Your task to perform on an android device: read, delete, or share a saved page in the chrome app Image 0: 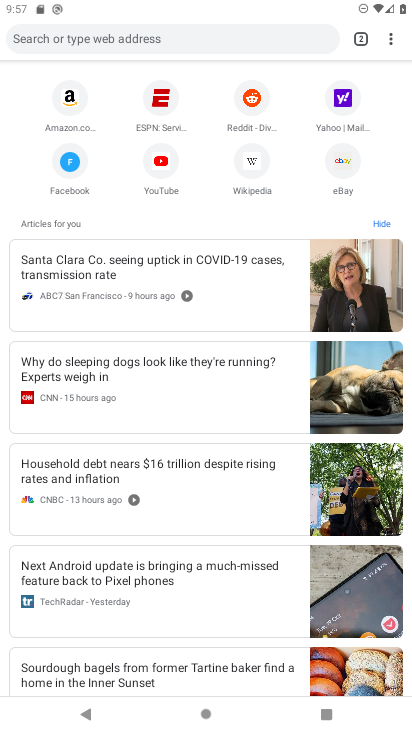
Step 0: press home button
Your task to perform on an android device: read, delete, or share a saved page in the chrome app Image 1: 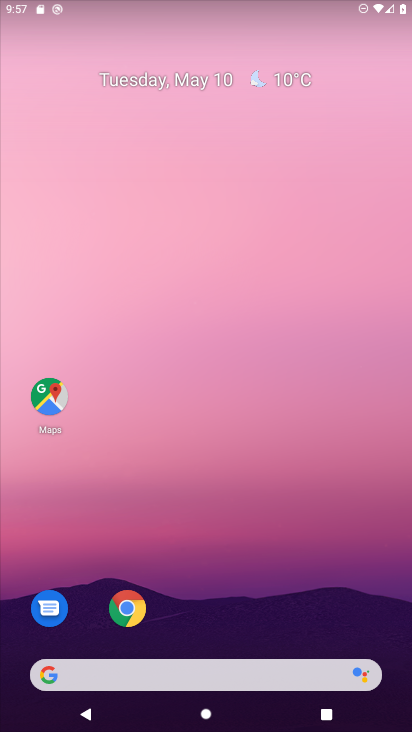
Step 1: drag from (347, 611) to (263, 51)
Your task to perform on an android device: read, delete, or share a saved page in the chrome app Image 2: 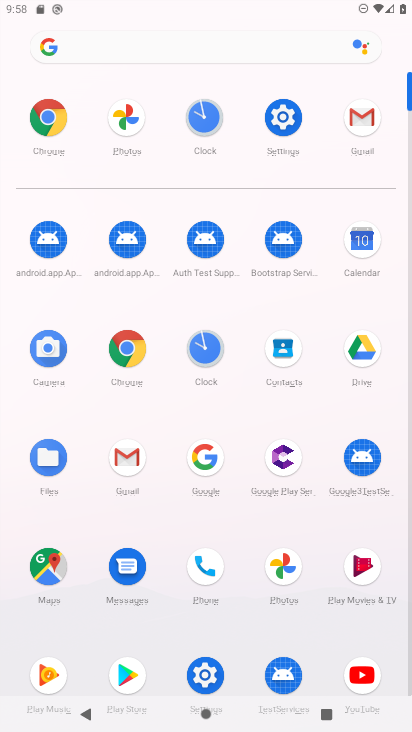
Step 2: click (125, 350)
Your task to perform on an android device: read, delete, or share a saved page in the chrome app Image 3: 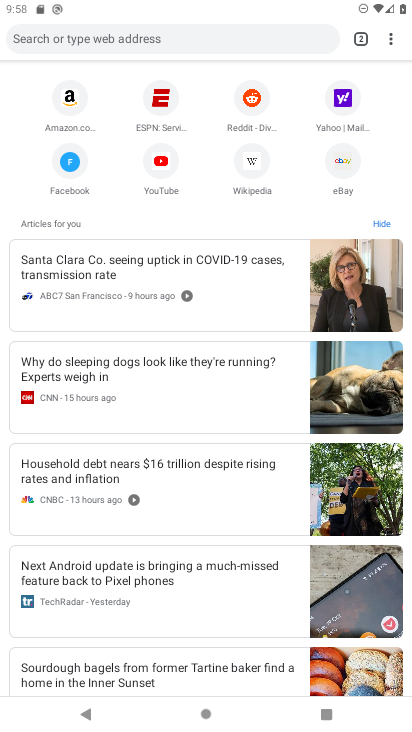
Step 3: task complete